Your task to perform on an android device: Go to Google maps Image 0: 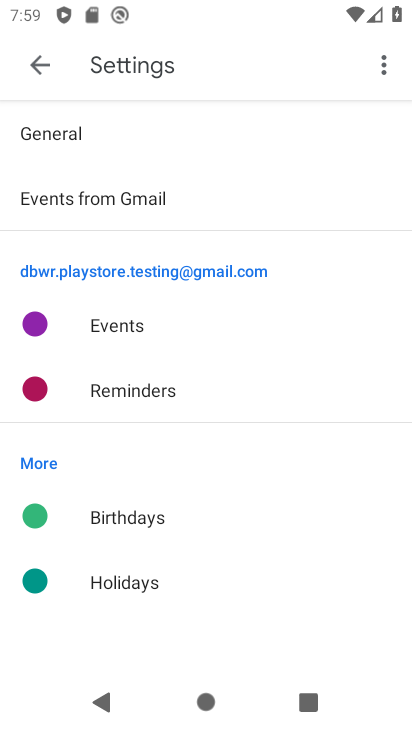
Step 0: press home button
Your task to perform on an android device: Go to Google maps Image 1: 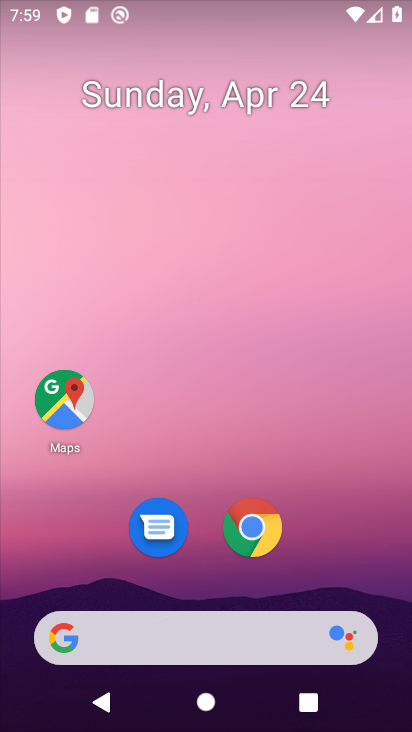
Step 1: click (66, 403)
Your task to perform on an android device: Go to Google maps Image 2: 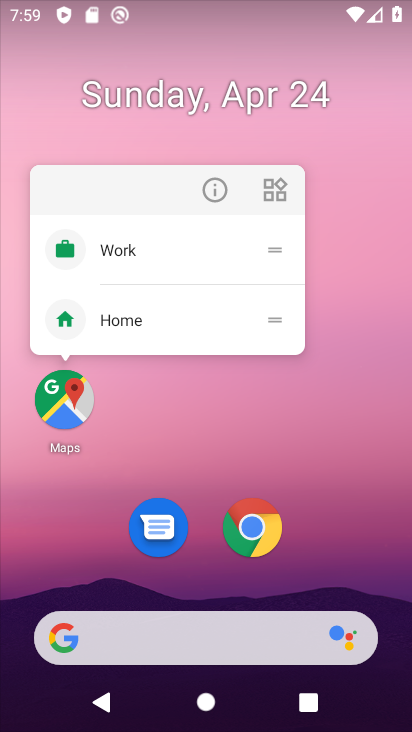
Step 2: click (63, 403)
Your task to perform on an android device: Go to Google maps Image 3: 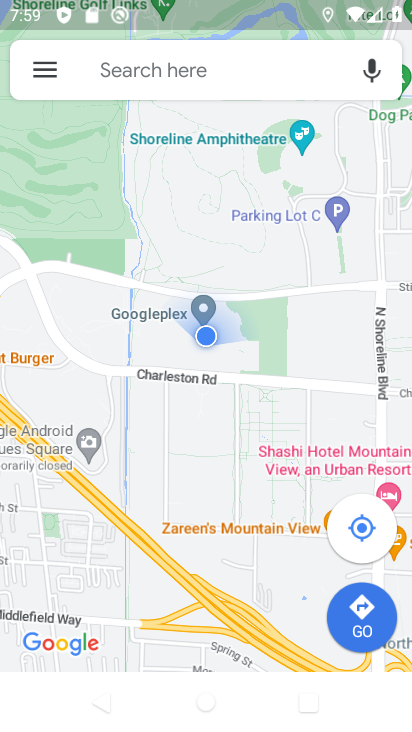
Step 3: task complete